Your task to perform on an android device: open app "YouTube Kids" (install if not already installed), go to login, and select forgot password Image 0: 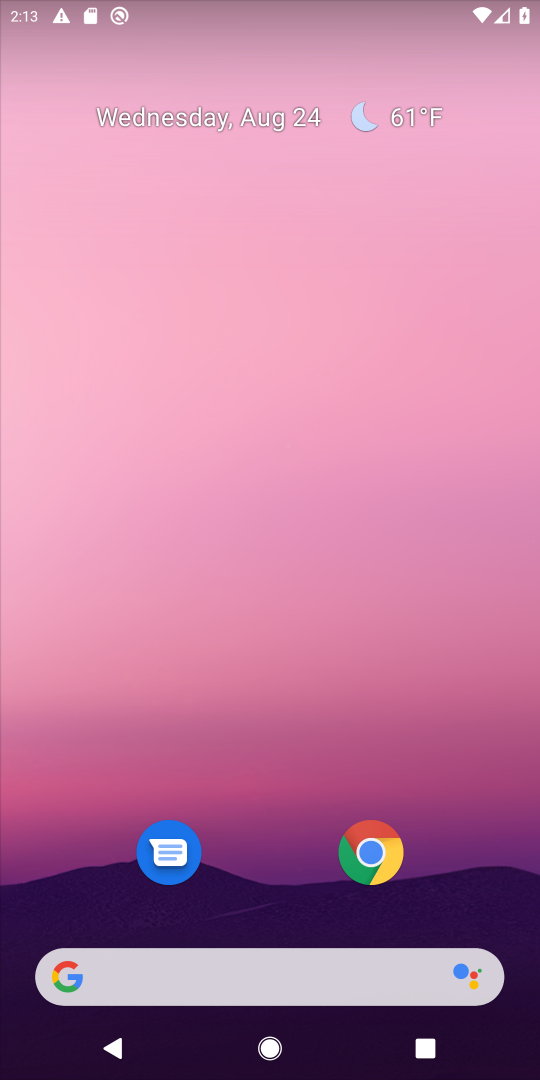
Step 0: press home button
Your task to perform on an android device: open app "YouTube Kids" (install if not already installed), go to login, and select forgot password Image 1: 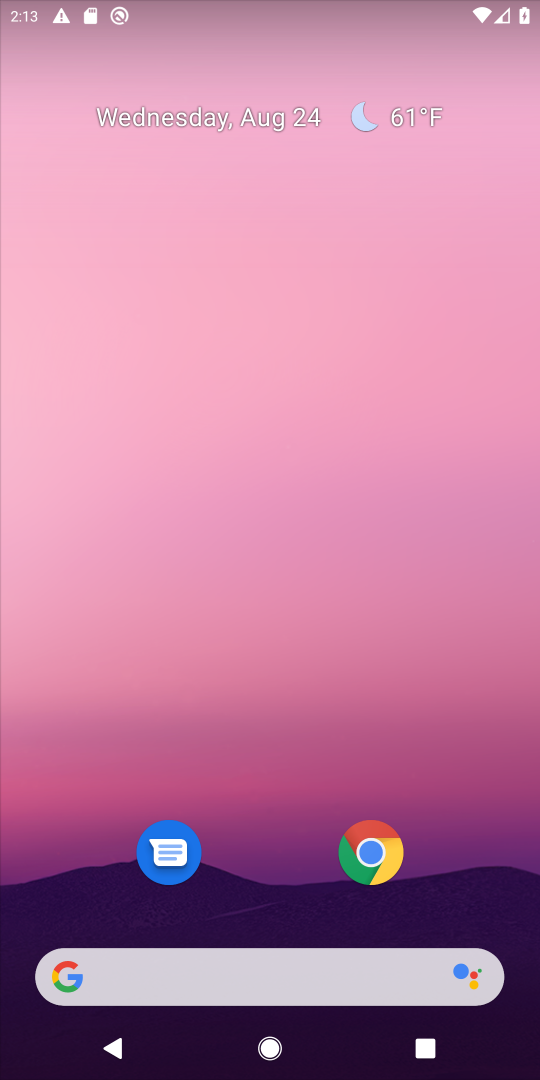
Step 1: drag from (282, 901) to (283, 77)
Your task to perform on an android device: open app "YouTube Kids" (install if not already installed), go to login, and select forgot password Image 2: 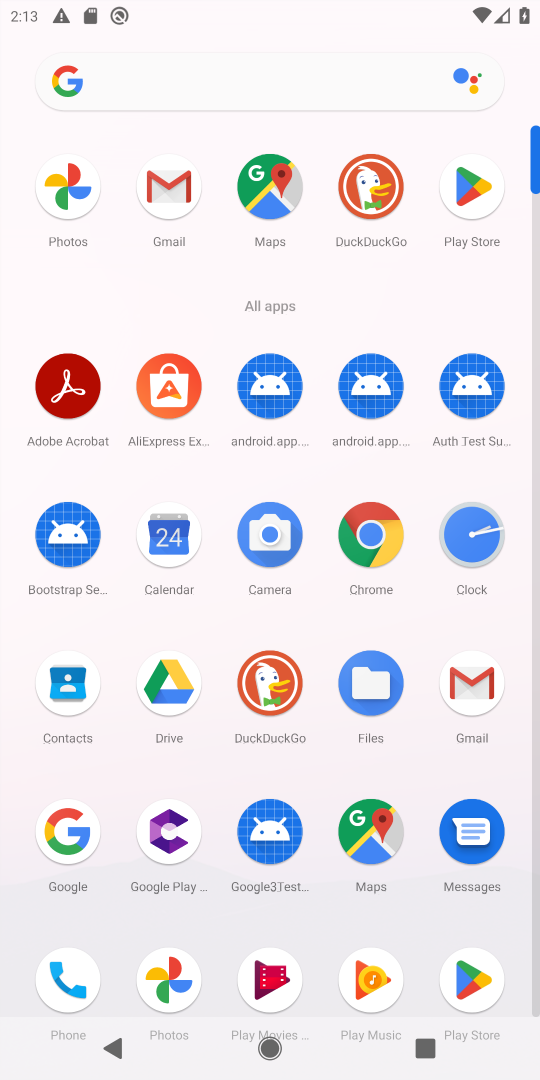
Step 2: click (471, 181)
Your task to perform on an android device: open app "YouTube Kids" (install if not already installed), go to login, and select forgot password Image 3: 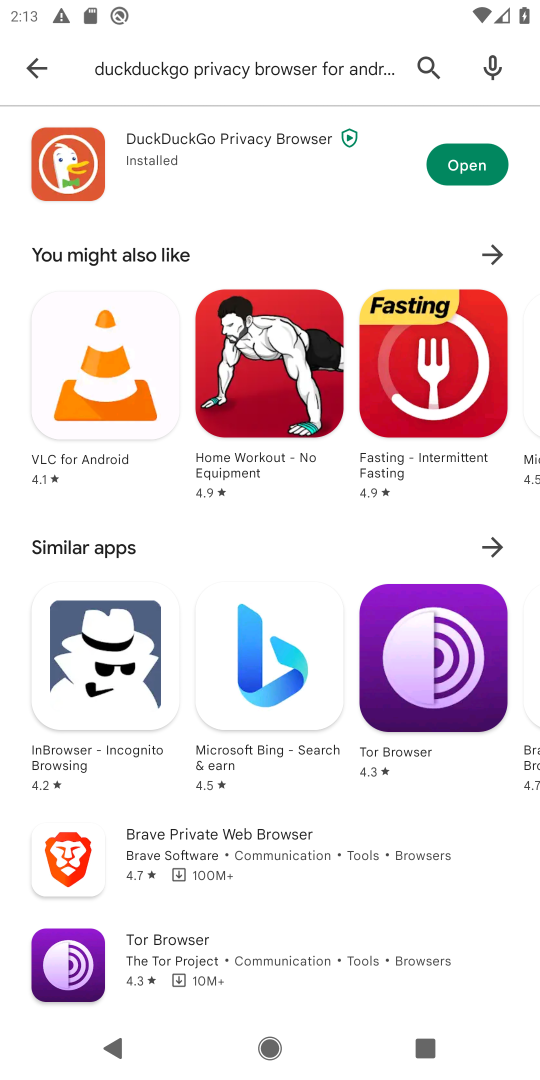
Step 3: click (413, 65)
Your task to perform on an android device: open app "YouTube Kids" (install if not already installed), go to login, and select forgot password Image 4: 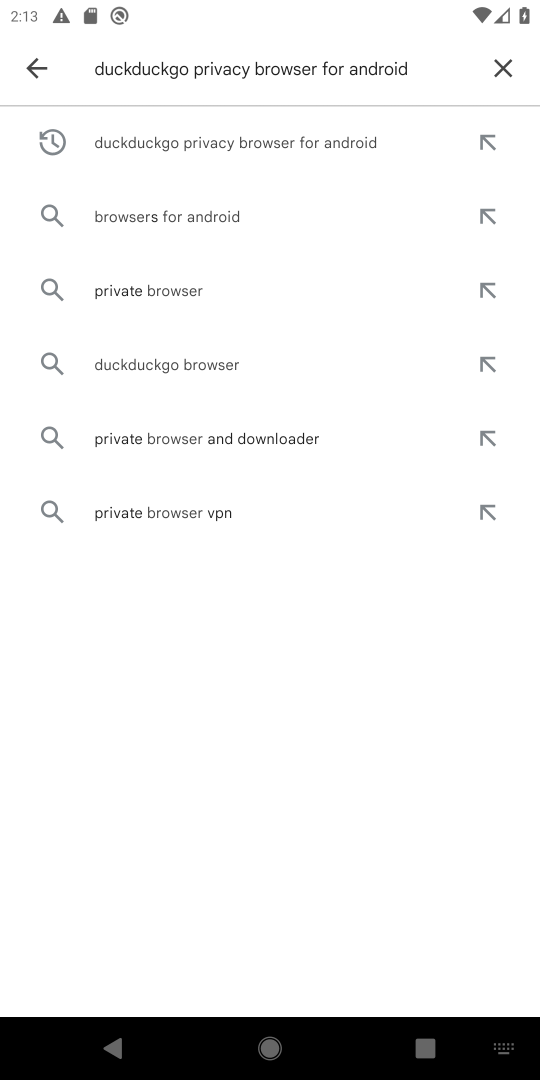
Step 4: click (498, 63)
Your task to perform on an android device: open app "YouTube Kids" (install if not already installed), go to login, and select forgot password Image 5: 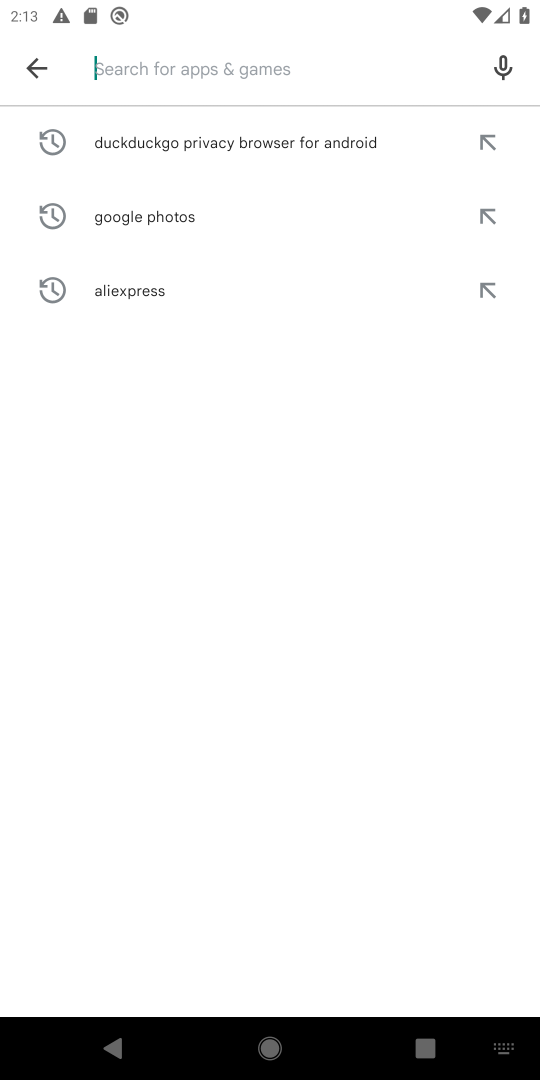
Step 5: type "YouTube Kids"
Your task to perform on an android device: open app "YouTube Kids" (install if not already installed), go to login, and select forgot password Image 6: 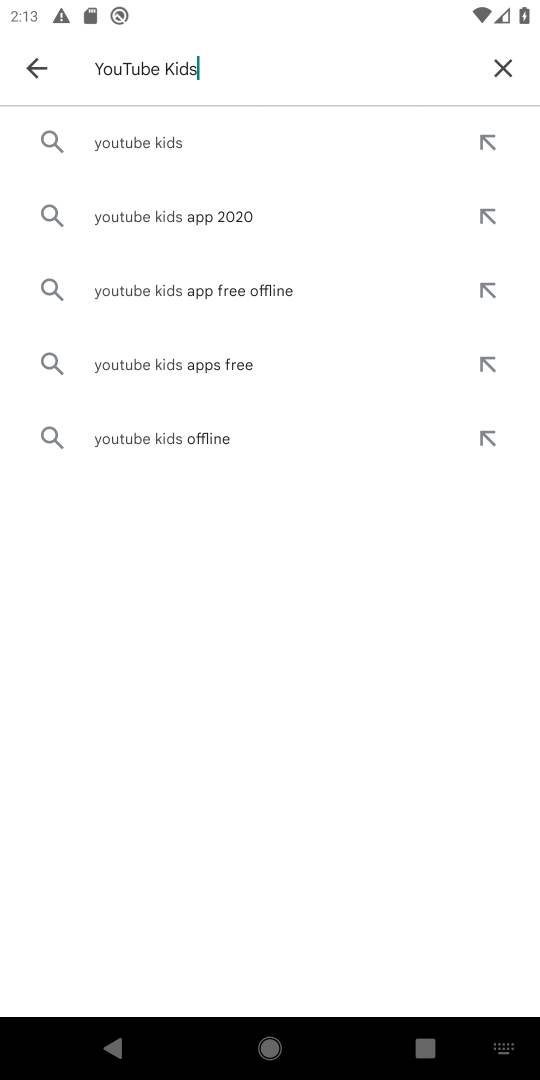
Step 6: click (210, 140)
Your task to perform on an android device: open app "YouTube Kids" (install if not already installed), go to login, and select forgot password Image 7: 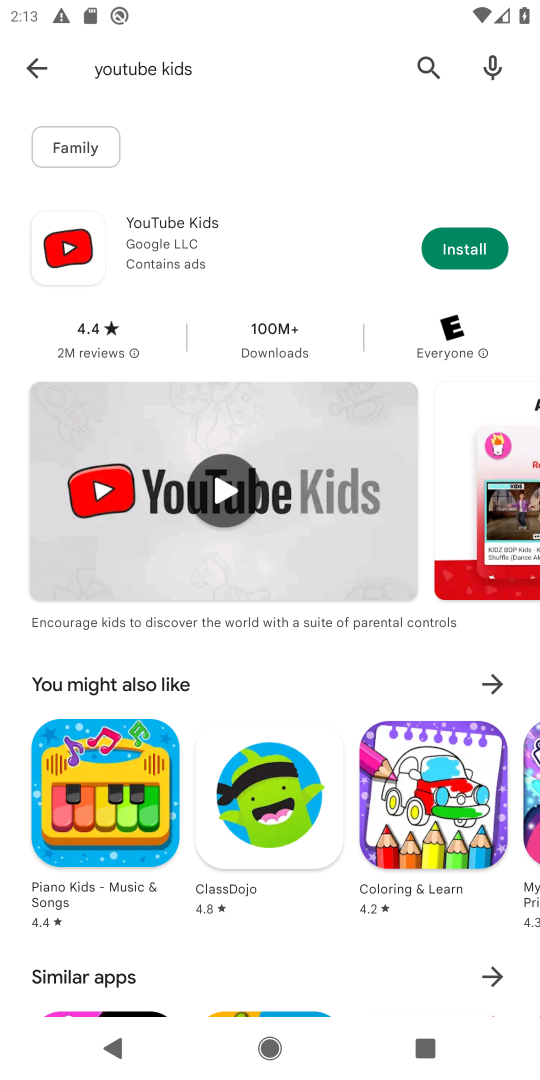
Step 7: click (462, 248)
Your task to perform on an android device: open app "YouTube Kids" (install if not already installed), go to login, and select forgot password Image 8: 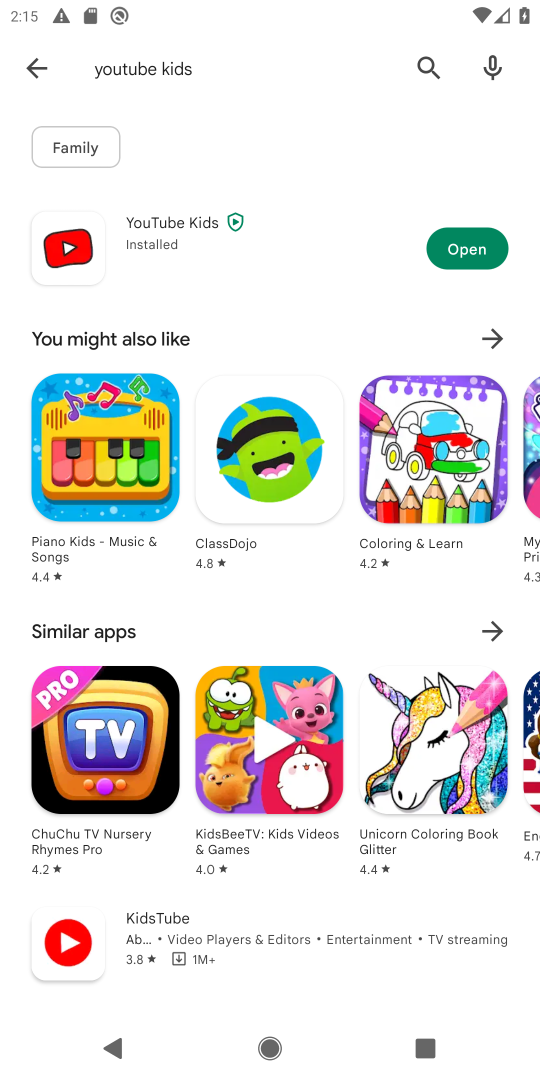
Step 8: click (470, 246)
Your task to perform on an android device: open app "YouTube Kids" (install if not already installed), go to login, and select forgot password Image 9: 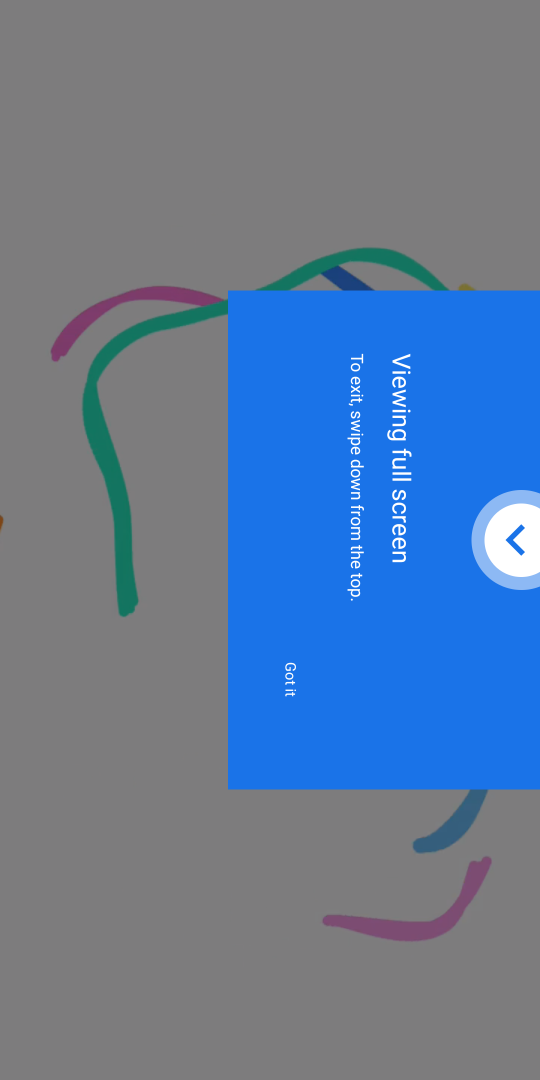
Step 9: click (291, 678)
Your task to perform on an android device: open app "YouTube Kids" (install if not already installed), go to login, and select forgot password Image 10: 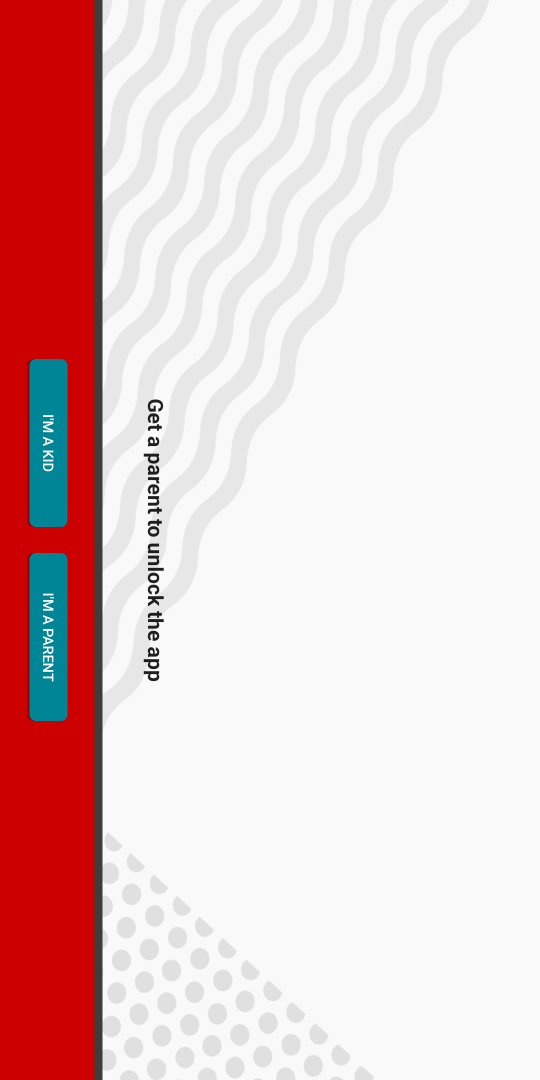
Step 10: task complete